Your task to perform on an android device: Open maps Image 0: 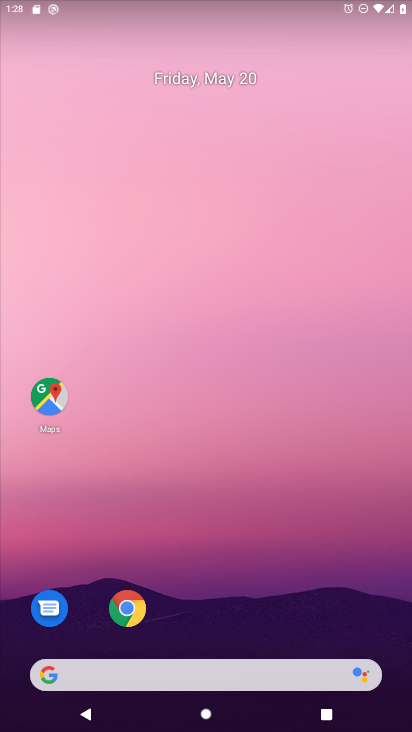
Step 0: press home button
Your task to perform on an android device: Open maps Image 1: 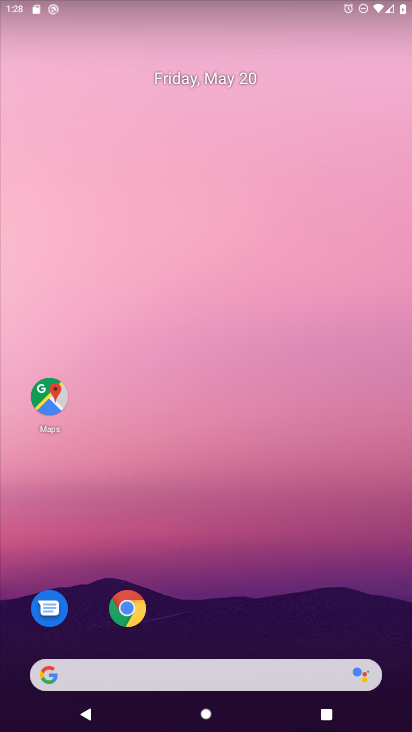
Step 1: click (51, 402)
Your task to perform on an android device: Open maps Image 2: 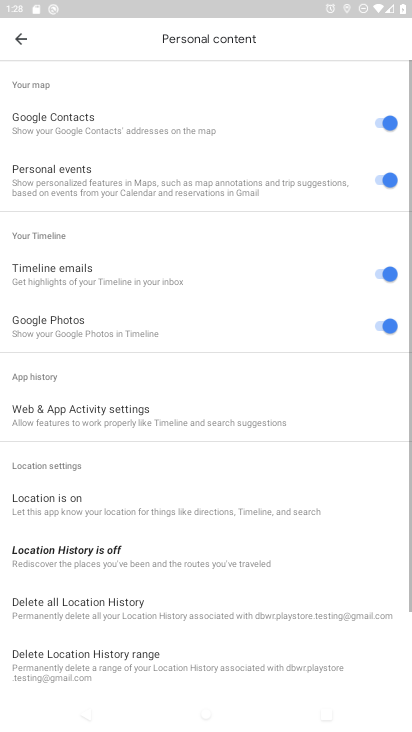
Step 2: task complete